Your task to perform on an android device: toggle improve location accuracy Image 0: 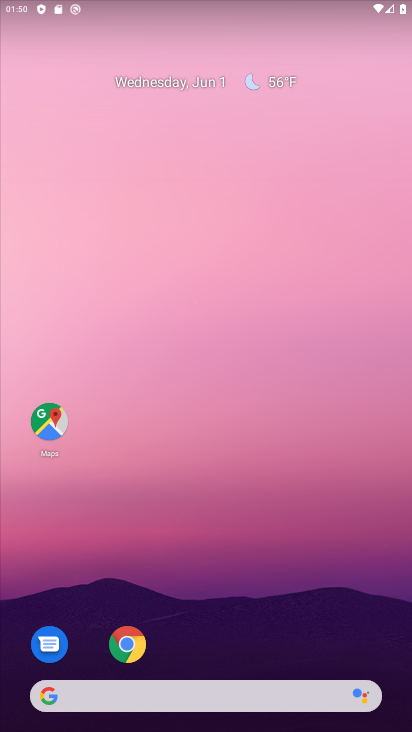
Step 0: drag from (241, 668) to (225, 466)
Your task to perform on an android device: toggle improve location accuracy Image 1: 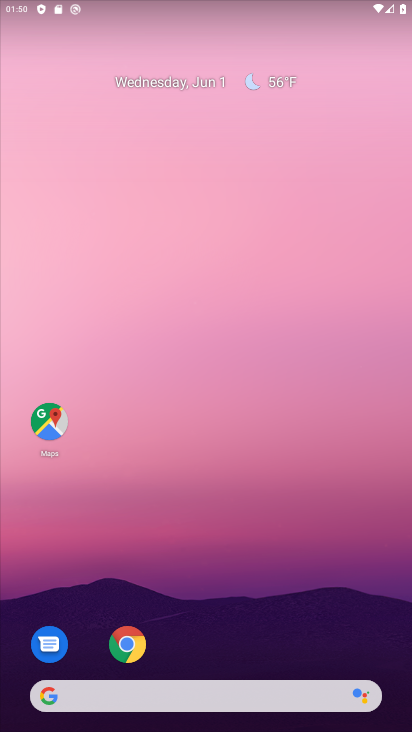
Step 1: drag from (250, 668) to (214, 271)
Your task to perform on an android device: toggle improve location accuracy Image 2: 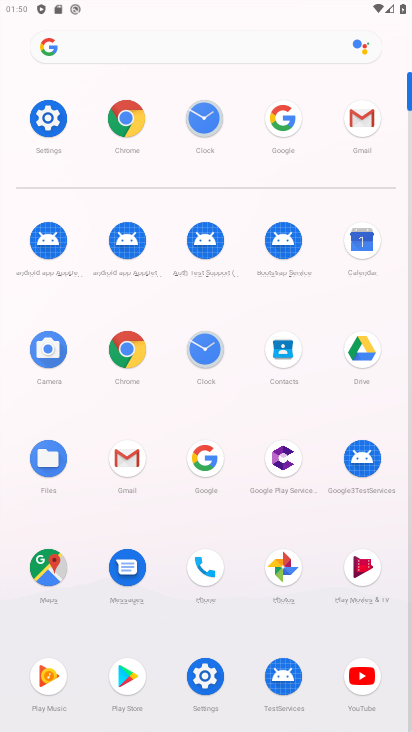
Step 2: click (42, 123)
Your task to perform on an android device: toggle improve location accuracy Image 3: 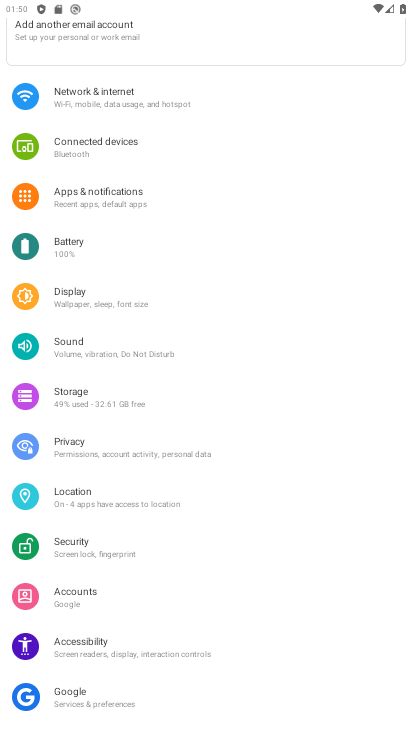
Step 3: click (89, 493)
Your task to perform on an android device: toggle improve location accuracy Image 4: 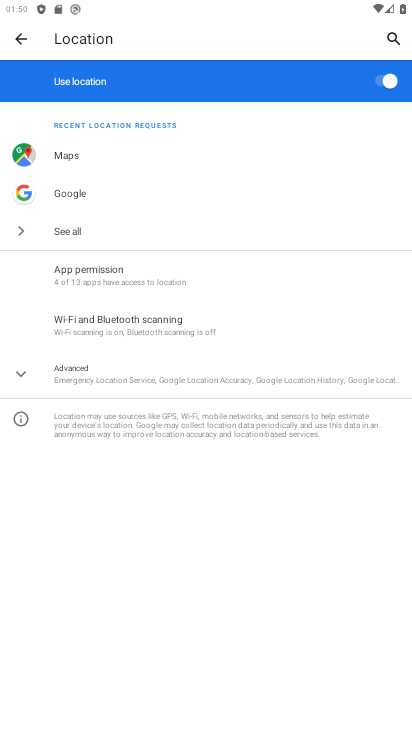
Step 4: click (81, 372)
Your task to perform on an android device: toggle improve location accuracy Image 5: 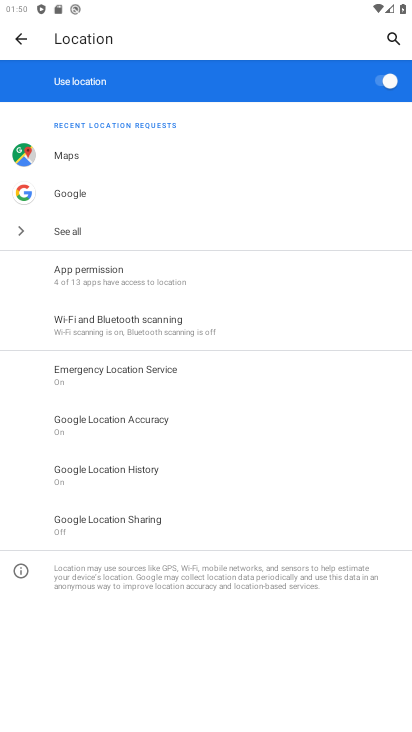
Step 5: click (120, 415)
Your task to perform on an android device: toggle improve location accuracy Image 6: 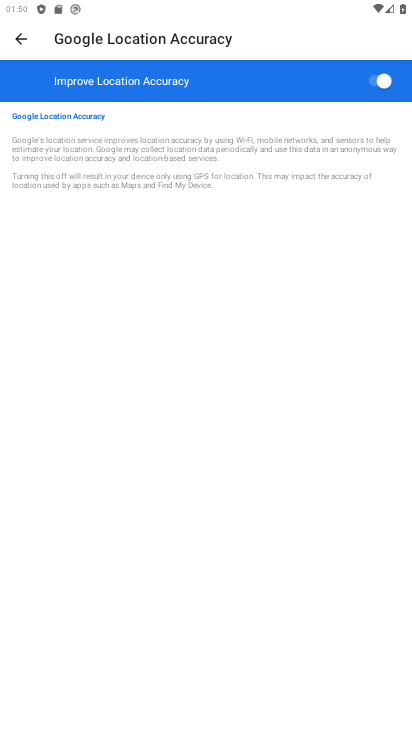
Step 6: click (381, 83)
Your task to perform on an android device: toggle improve location accuracy Image 7: 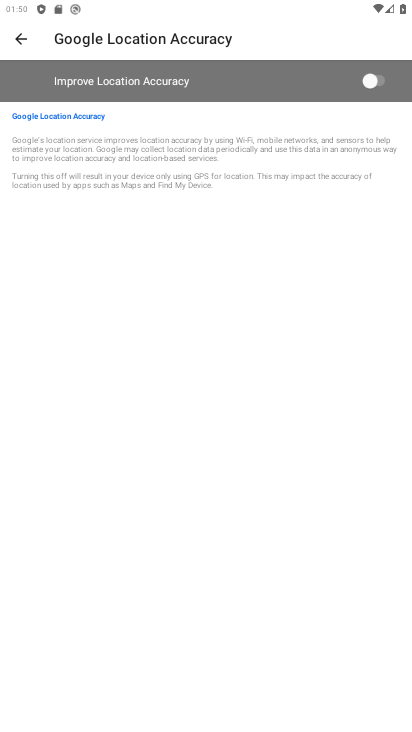
Step 7: task complete